Your task to perform on an android device: Open wifi settings Image 0: 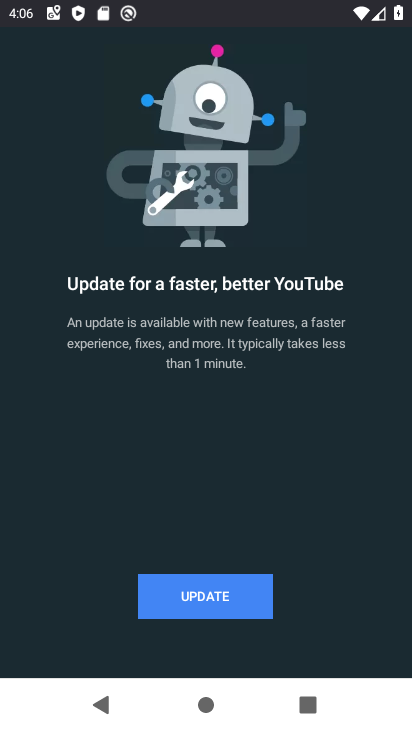
Step 0: press home button
Your task to perform on an android device: Open wifi settings Image 1: 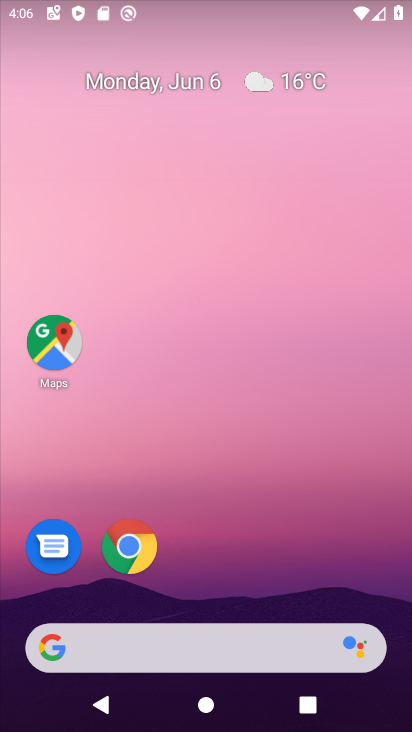
Step 1: drag from (291, 508) to (309, 3)
Your task to perform on an android device: Open wifi settings Image 2: 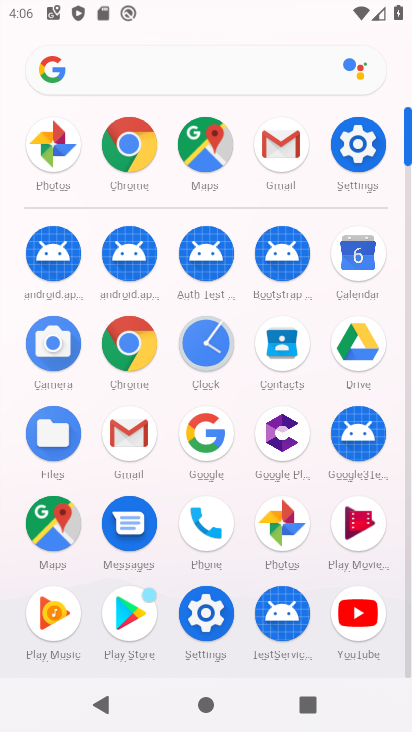
Step 2: click (358, 153)
Your task to perform on an android device: Open wifi settings Image 3: 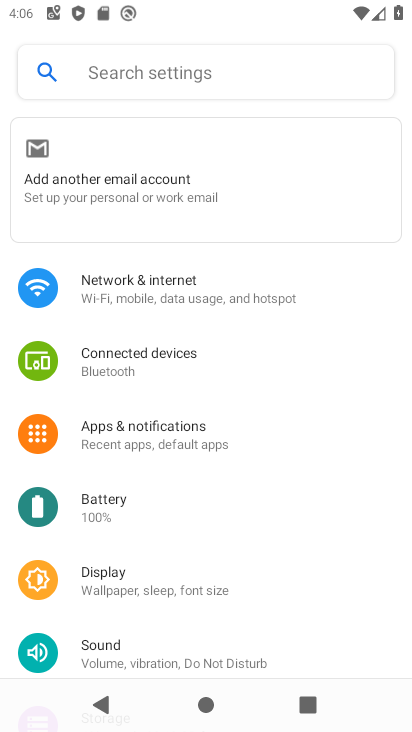
Step 3: drag from (150, 276) to (170, 633)
Your task to perform on an android device: Open wifi settings Image 4: 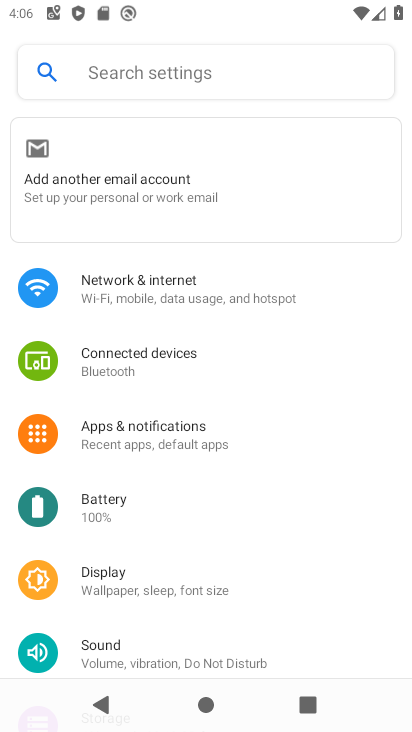
Step 4: click (142, 282)
Your task to perform on an android device: Open wifi settings Image 5: 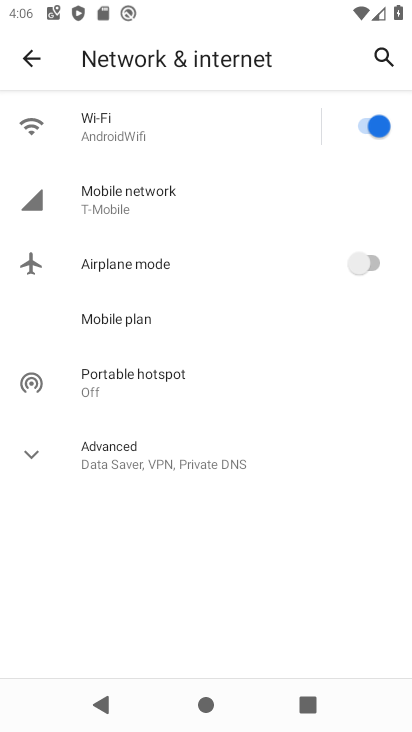
Step 5: click (109, 144)
Your task to perform on an android device: Open wifi settings Image 6: 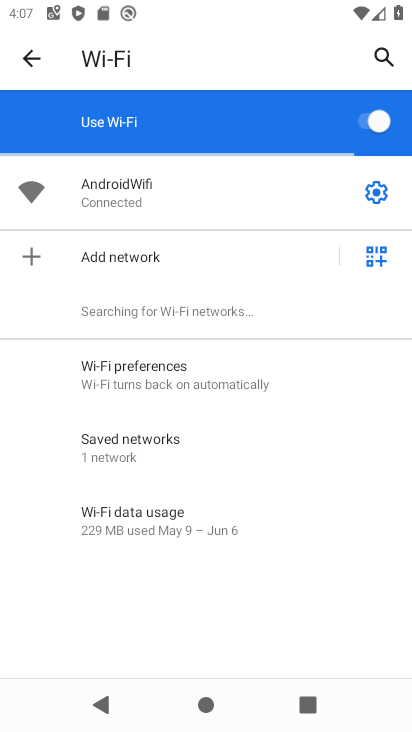
Step 6: task complete